Your task to perform on an android device: change notification settings in the gmail app Image 0: 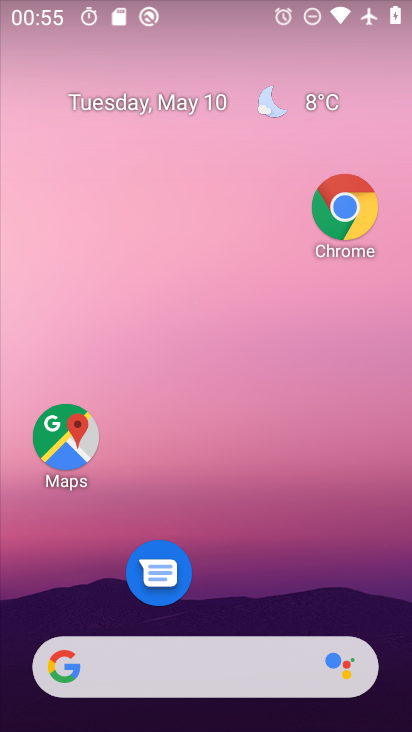
Step 0: drag from (265, 603) to (287, 126)
Your task to perform on an android device: change notification settings in the gmail app Image 1: 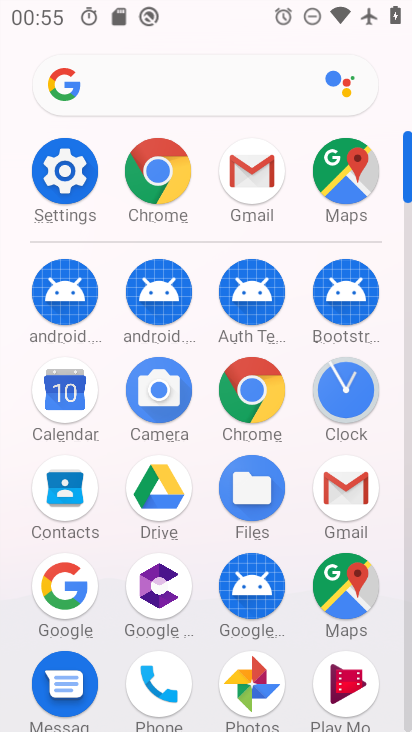
Step 1: click (336, 475)
Your task to perform on an android device: change notification settings in the gmail app Image 2: 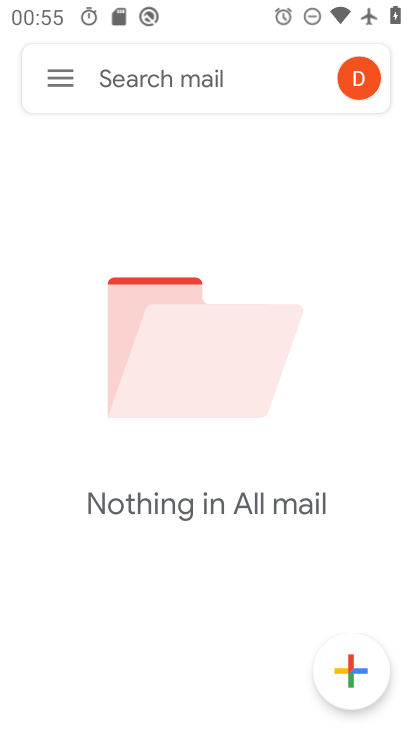
Step 2: click (65, 78)
Your task to perform on an android device: change notification settings in the gmail app Image 3: 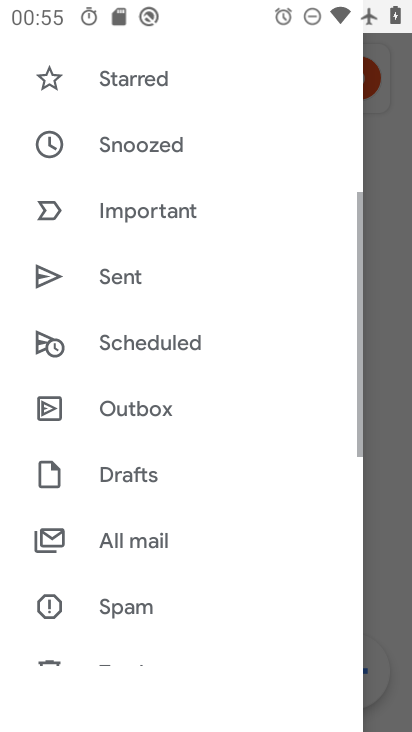
Step 3: drag from (157, 584) to (243, 203)
Your task to perform on an android device: change notification settings in the gmail app Image 4: 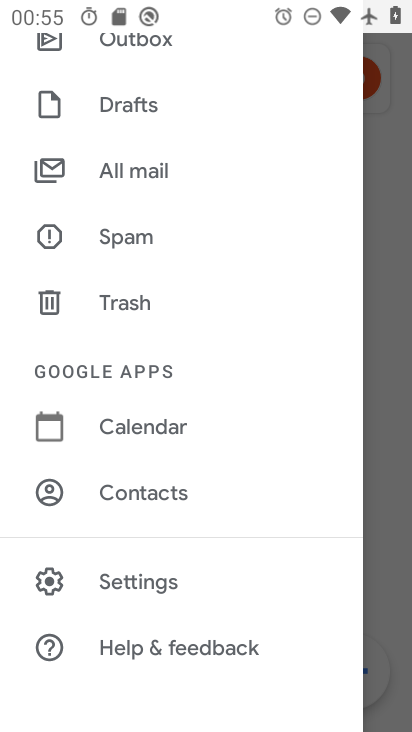
Step 4: click (113, 595)
Your task to perform on an android device: change notification settings in the gmail app Image 5: 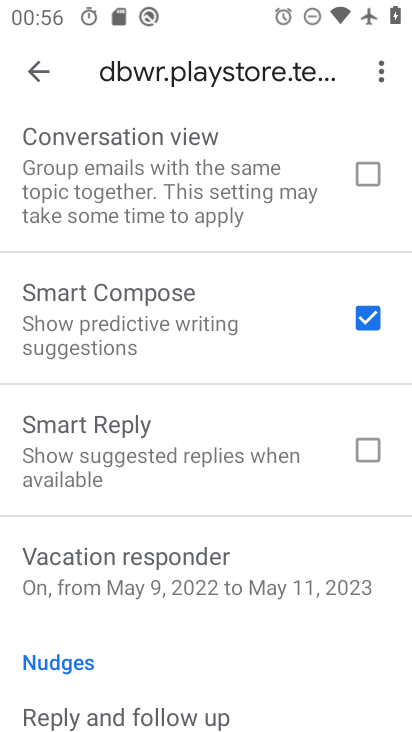
Step 5: drag from (208, 573) to (176, 722)
Your task to perform on an android device: change notification settings in the gmail app Image 6: 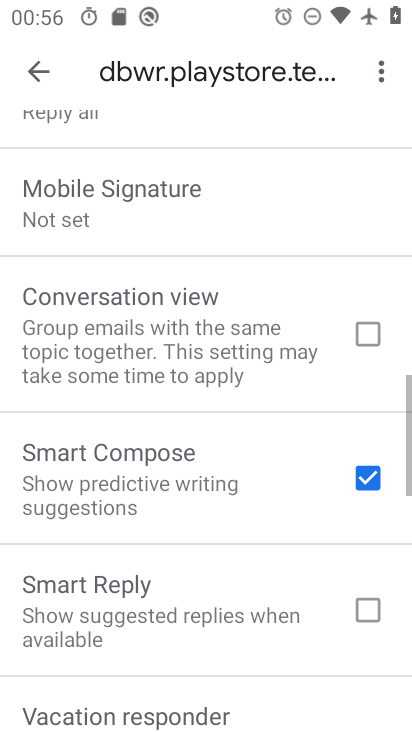
Step 6: drag from (178, 303) to (211, 706)
Your task to perform on an android device: change notification settings in the gmail app Image 7: 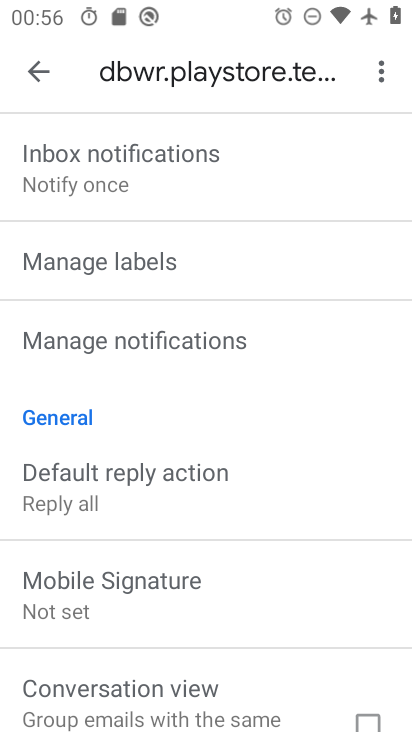
Step 7: click (127, 343)
Your task to perform on an android device: change notification settings in the gmail app Image 8: 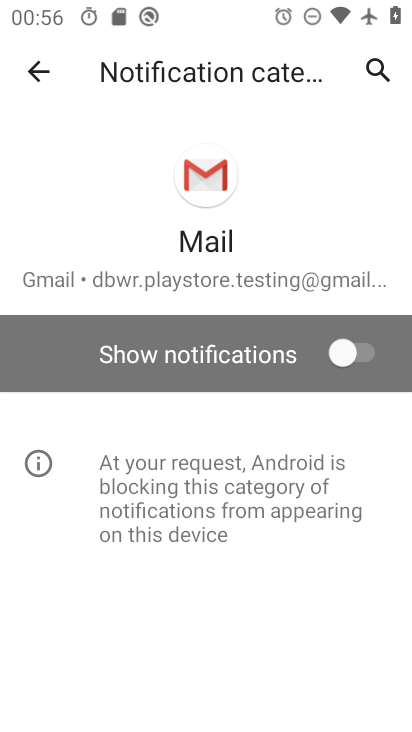
Step 8: click (352, 355)
Your task to perform on an android device: change notification settings in the gmail app Image 9: 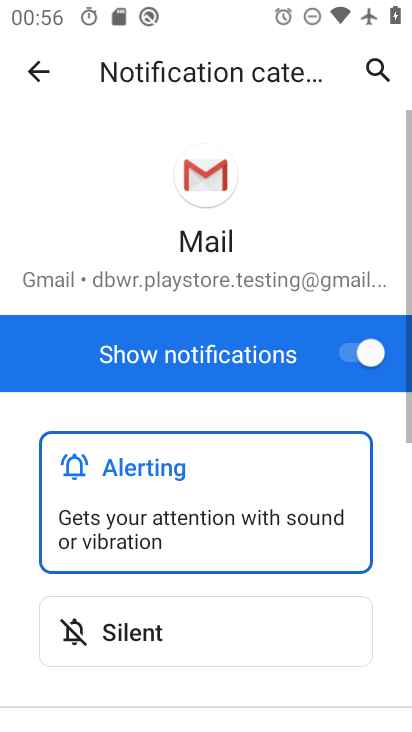
Step 9: task complete